Your task to perform on an android device: toggle sleep mode Image 0: 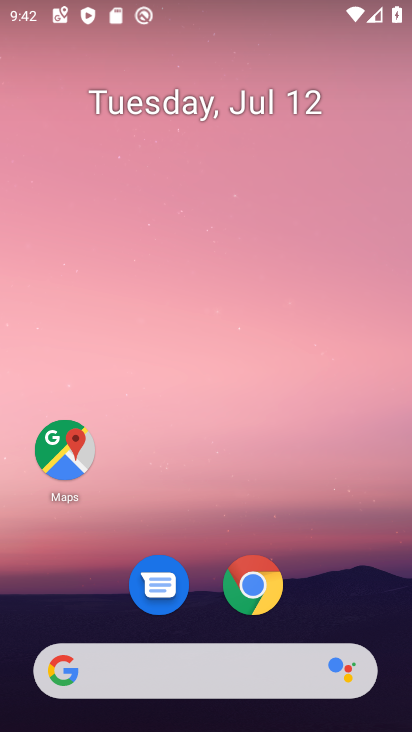
Step 0: drag from (198, 651) to (325, 95)
Your task to perform on an android device: toggle sleep mode Image 1: 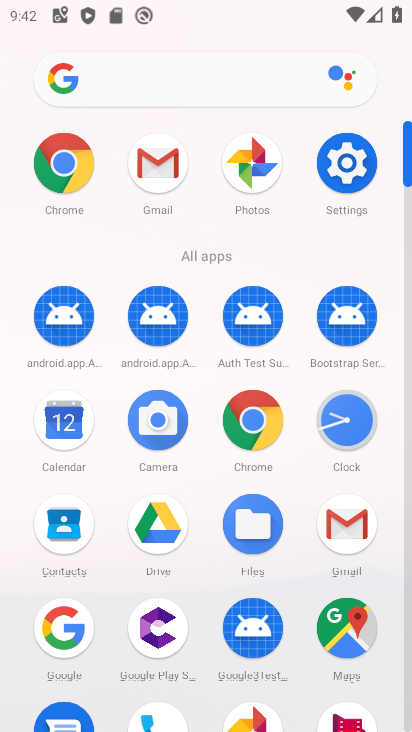
Step 1: click (334, 165)
Your task to perform on an android device: toggle sleep mode Image 2: 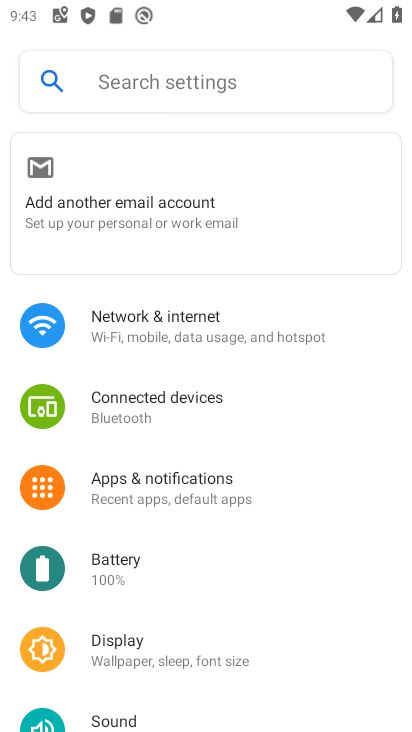
Step 2: click (163, 648)
Your task to perform on an android device: toggle sleep mode Image 3: 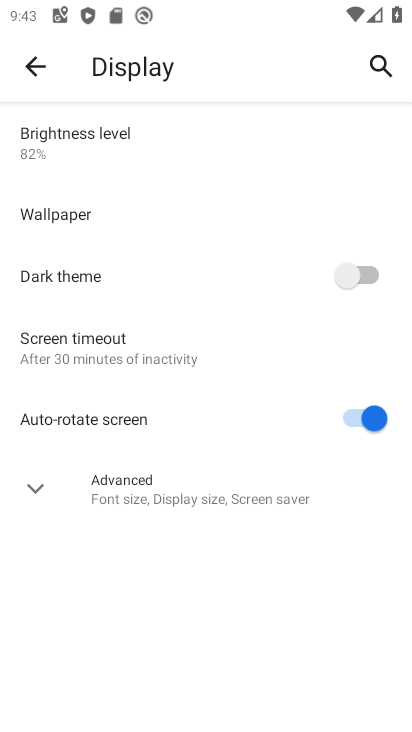
Step 3: click (141, 500)
Your task to perform on an android device: toggle sleep mode Image 4: 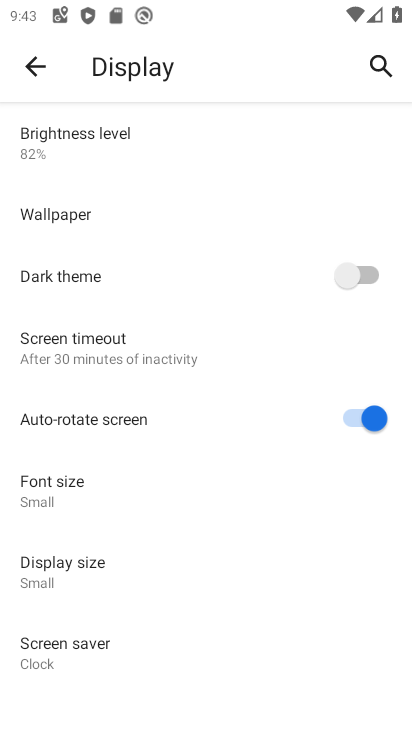
Step 4: task complete